Your task to perform on an android device: Show the shopping cart on bestbuy.com. Add dell xps to the cart on bestbuy.com Image 0: 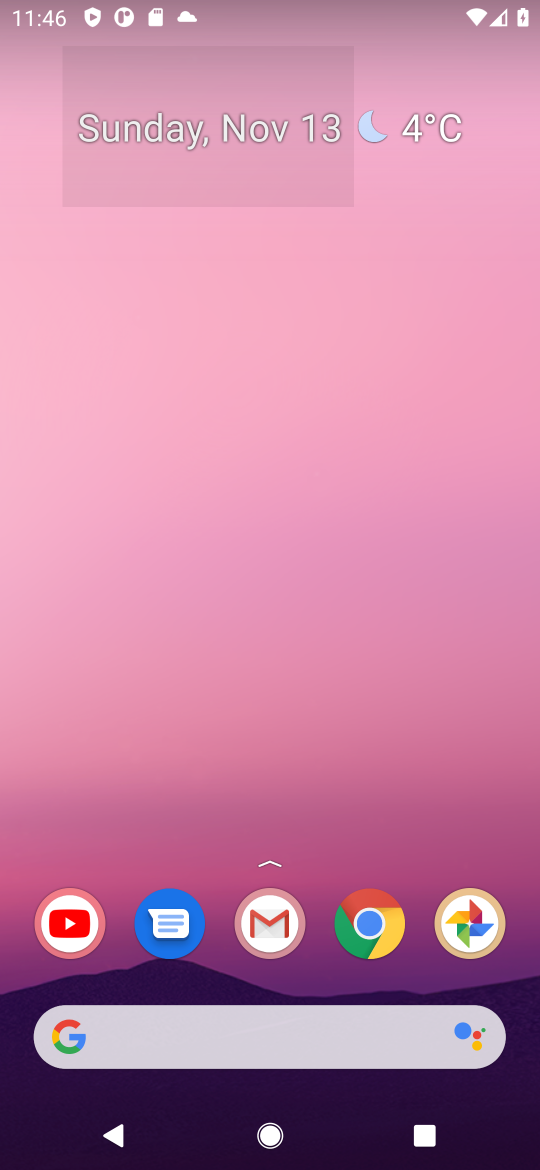
Step 0: click (359, 919)
Your task to perform on an android device: Show the shopping cart on bestbuy.com. Add dell xps to the cart on bestbuy.com Image 1: 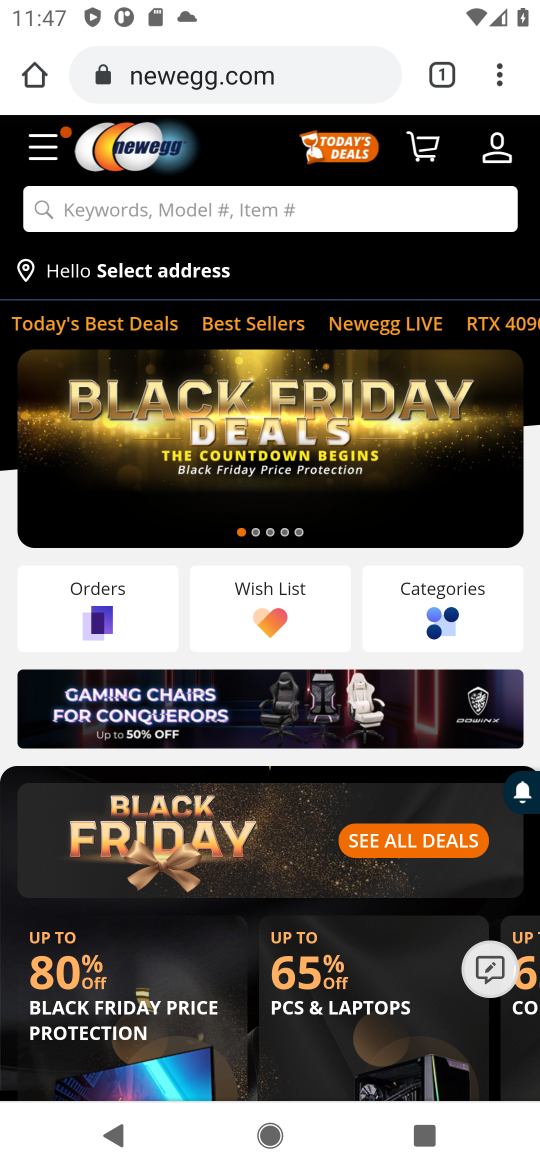
Step 1: click (215, 64)
Your task to perform on an android device: Show the shopping cart on bestbuy.com. Add dell xps to the cart on bestbuy.com Image 2: 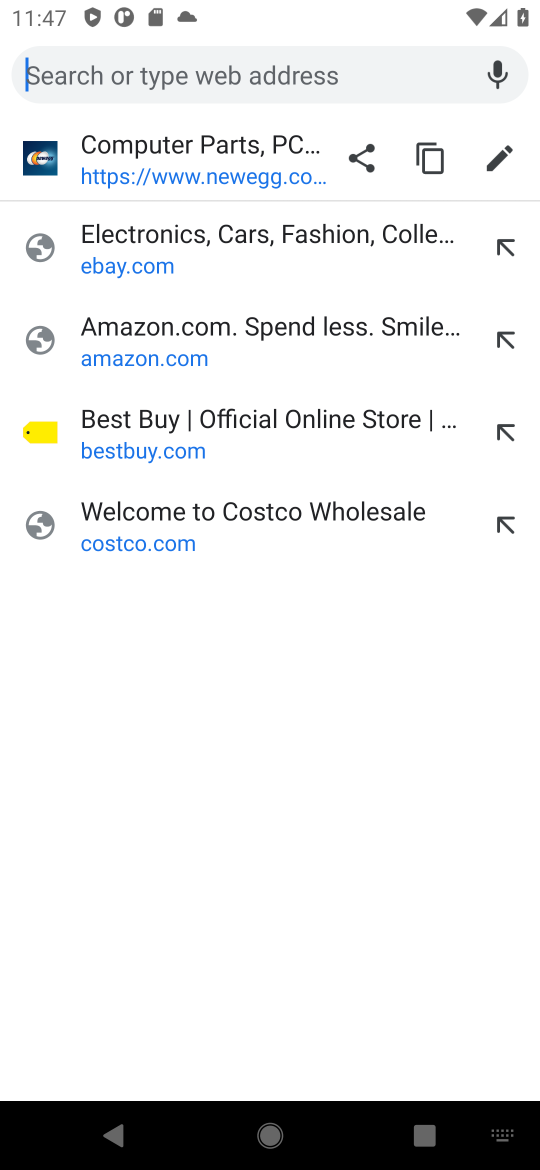
Step 2: click (140, 414)
Your task to perform on an android device: Show the shopping cart on bestbuy.com. Add dell xps to the cart on bestbuy.com Image 3: 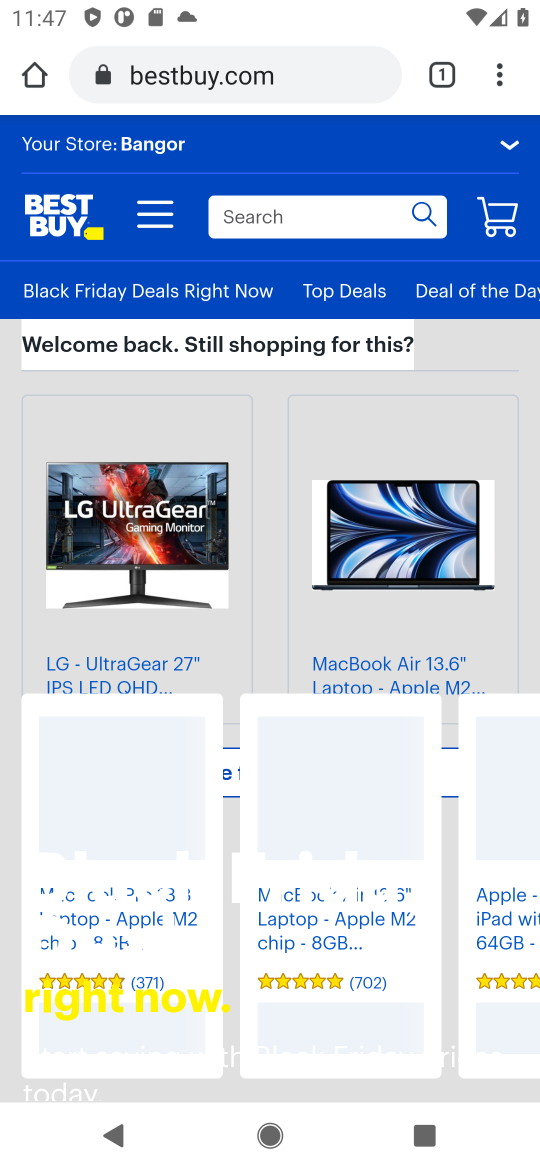
Step 3: click (493, 221)
Your task to perform on an android device: Show the shopping cart on bestbuy.com. Add dell xps to the cart on bestbuy.com Image 4: 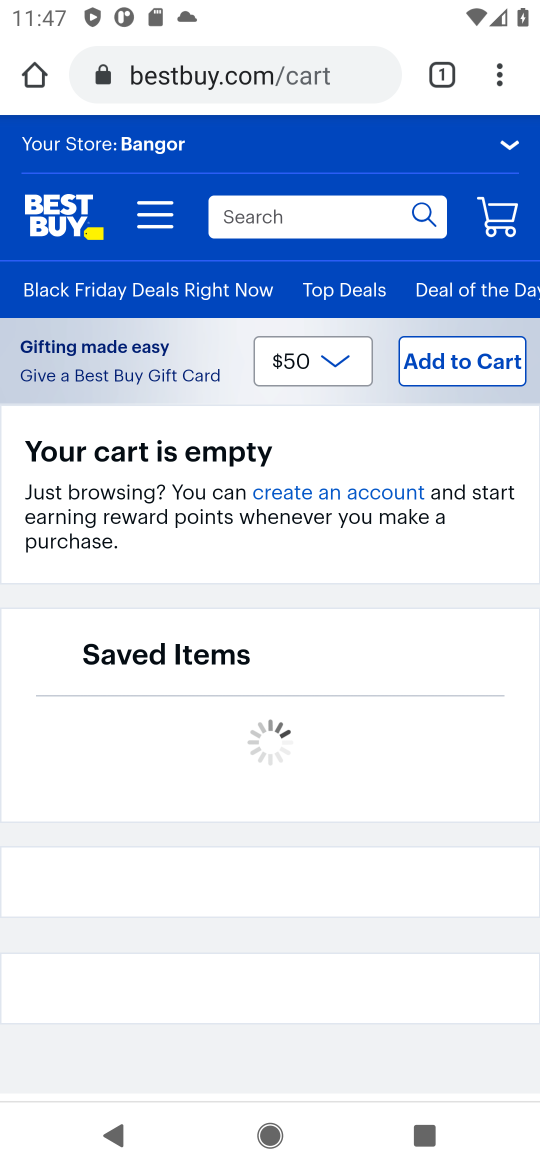
Step 4: click (342, 212)
Your task to perform on an android device: Show the shopping cart on bestbuy.com. Add dell xps to the cart on bestbuy.com Image 5: 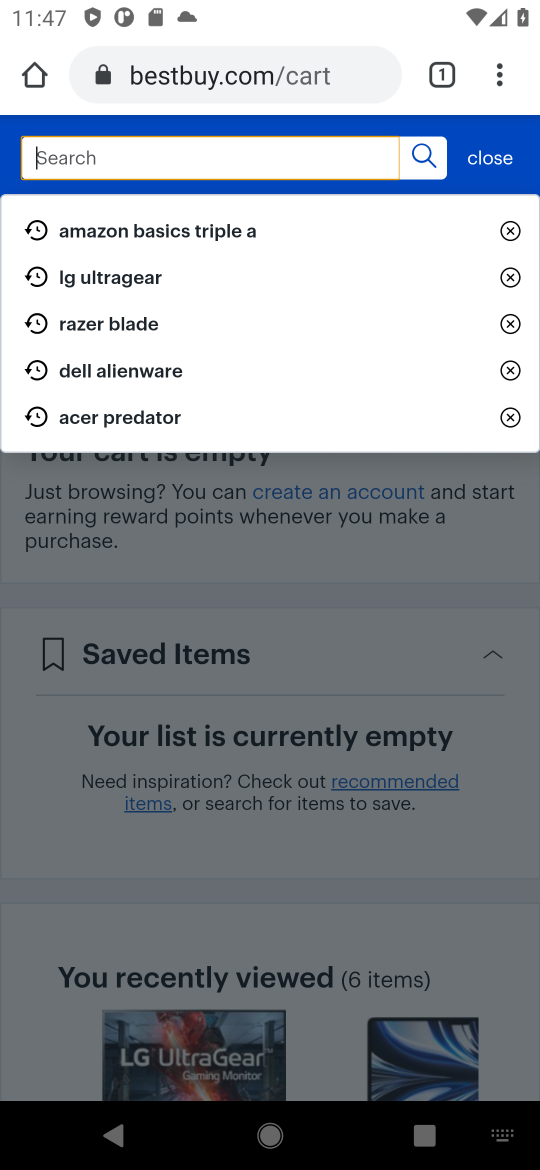
Step 5: press enter
Your task to perform on an android device: Show the shopping cart on bestbuy.com. Add dell xps to the cart on bestbuy.com Image 6: 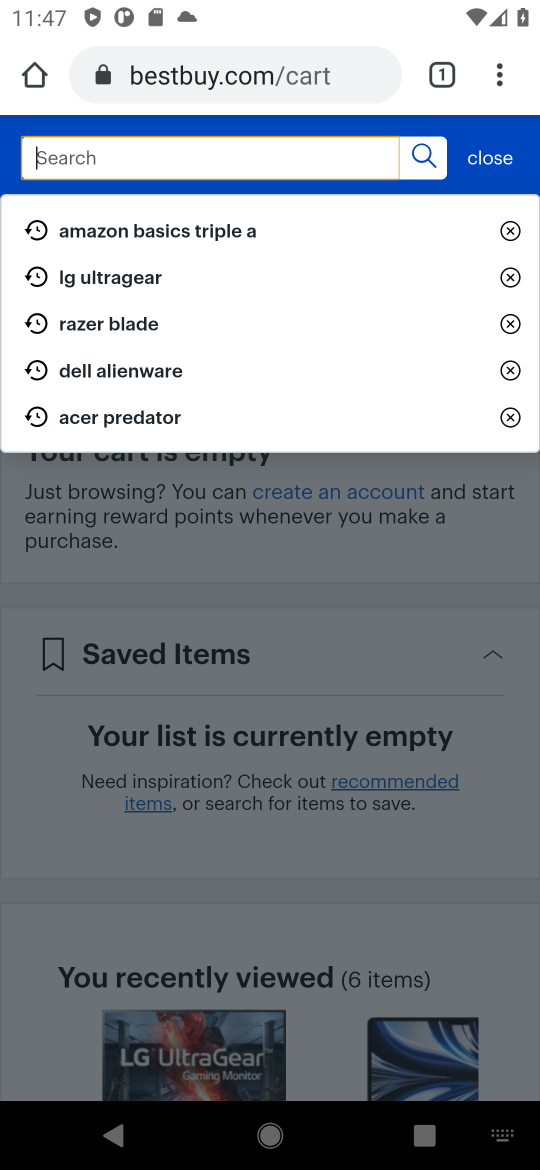
Step 6: type "dell xps"
Your task to perform on an android device: Show the shopping cart on bestbuy.com. Add dell xps to the cart on bestbuy.com Image 7: 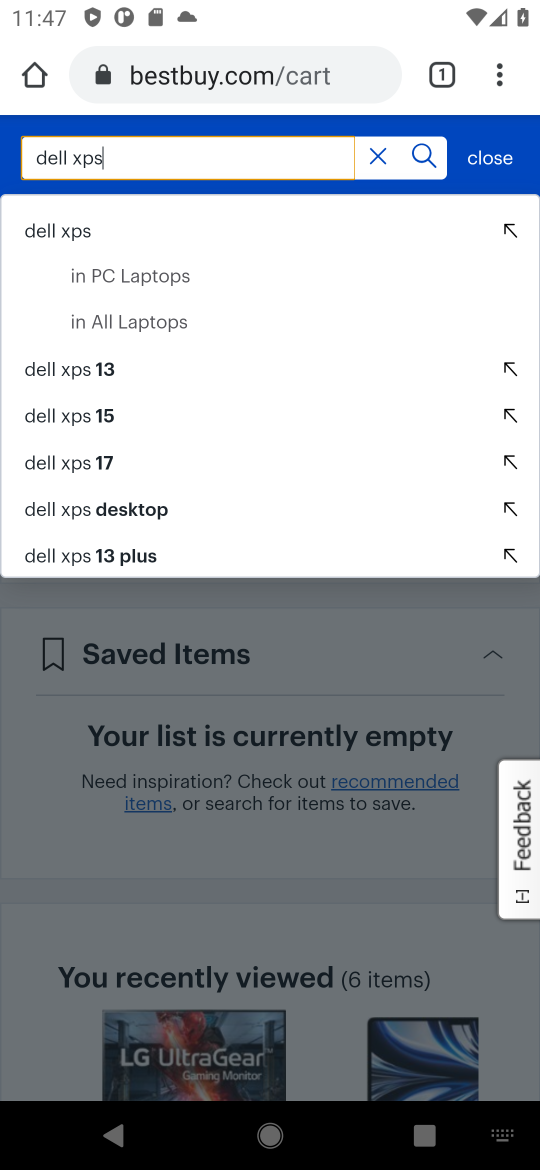
Step 7: click (71, 232)
Your task to perform on an android device: Show the shopping cart on bestbuy.com. Add dell xps to the cart on bestbuy.com Image 8: 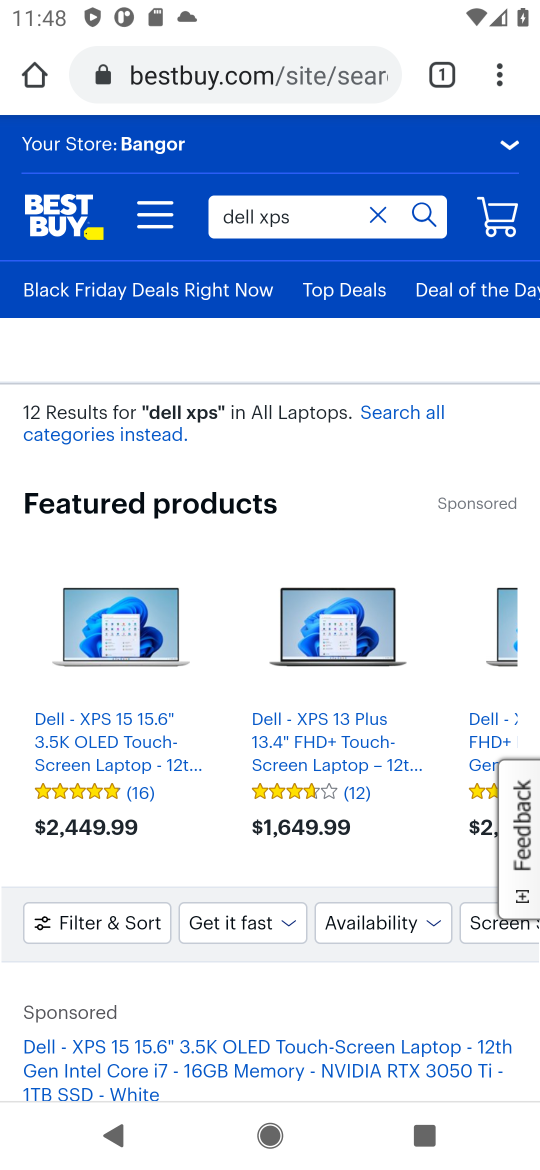
Step 8: drag from (387, 985) to (492, 331)
Your task to perform on an android device: Show the shopping cart on bestbuy.com. Add dell xps to the cart on bestbuy.com Image 9: 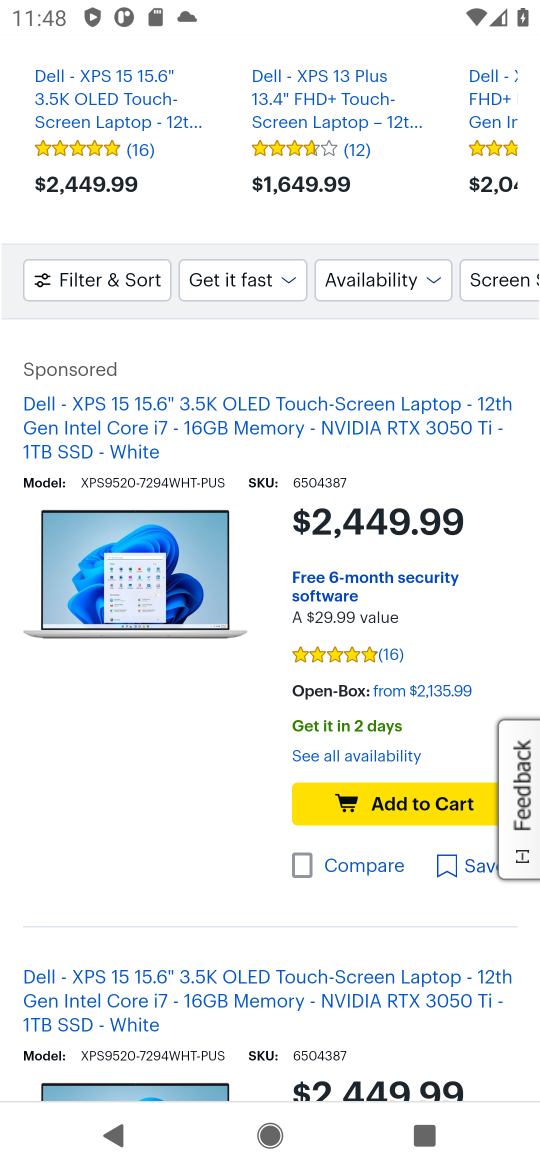
Step 9: click (149, 585)
Your task to perform on an android device: Show the shopping cart on bestbuy.com. Add dell xps to the cart on bestbuy.com Image 10: 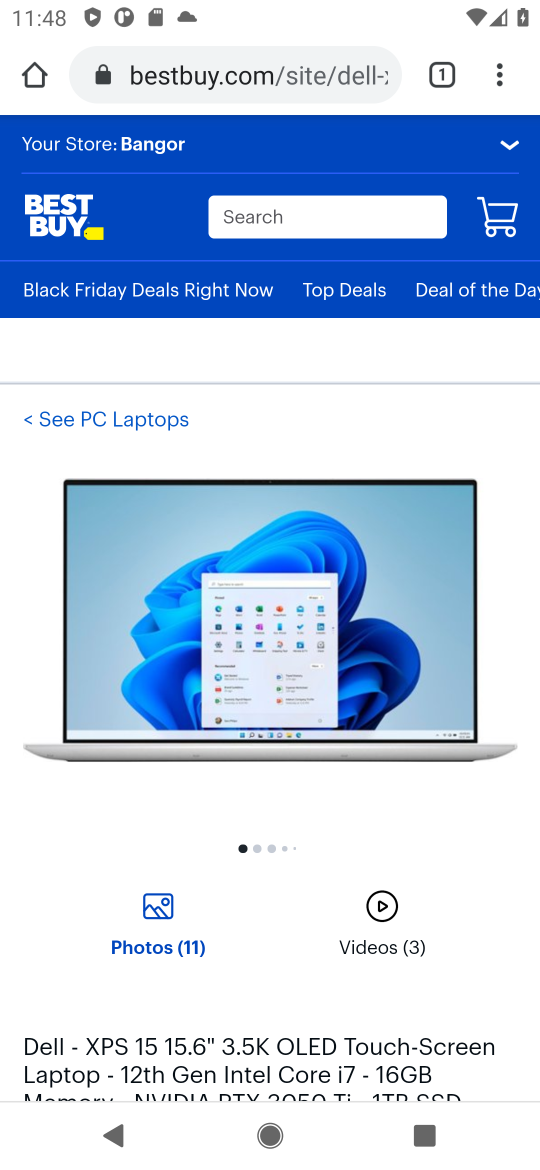
Step 10: drag from (460, 784) to (468, 417)
Your task to perform on an android device: Show the shopping cart on bestbuy.com. Add dell xps to the cart on bestbuy.com Image 11: 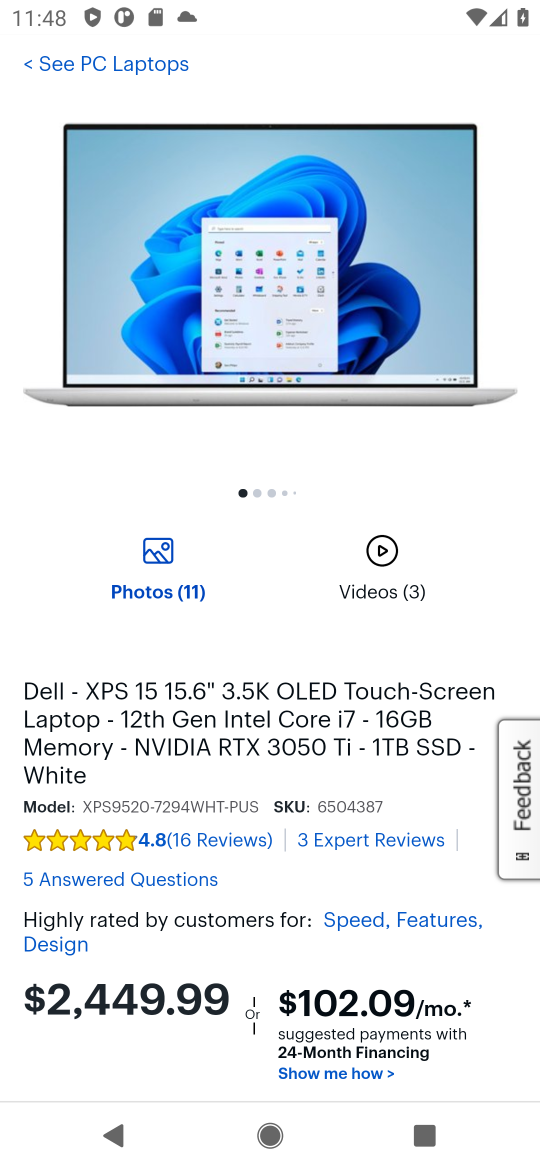
Step 11: drag from (482, 954) to (536, 320)
Your task to perform on an android device: Show the shopping cart on bestbuy.com. Add dell xps to the cart on bestbuy.com Image 12: 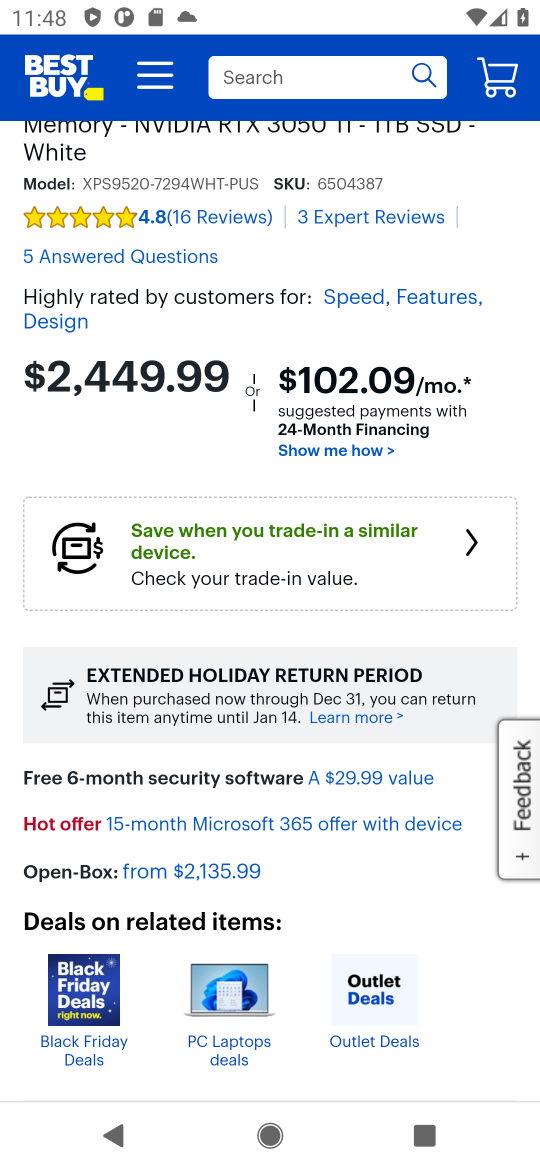
Step 12: drag from (478, 853) to (537, 376)
Your task to perform on an android device: Show the shopping cart on bestbuy.com. Add dell xps to the cart on bestbuy.com Image 13: 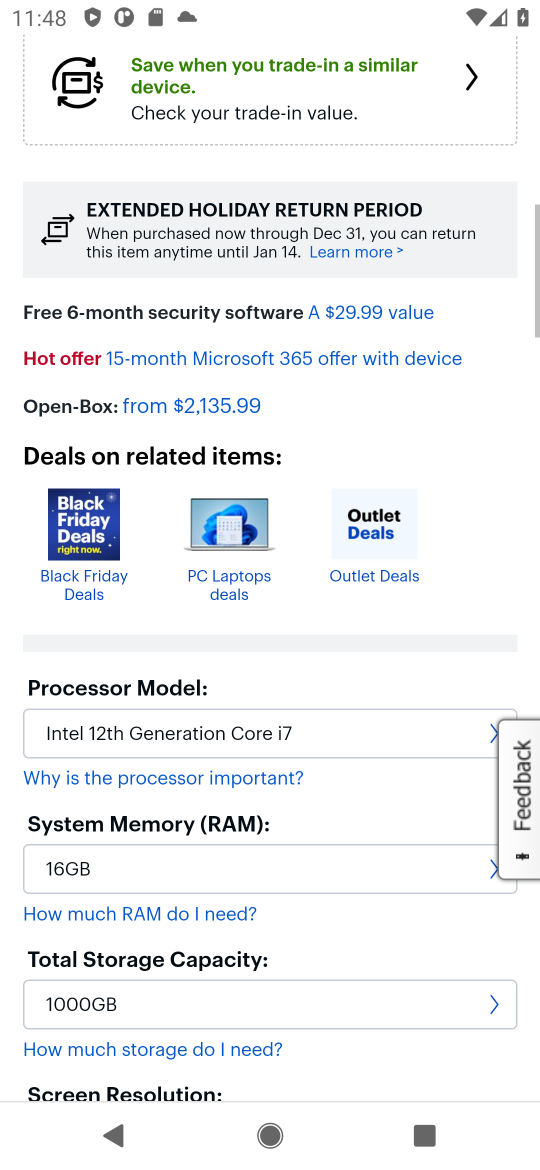
Step 13: drag from (427, 946) to (530, 964)
Your task to perform on an android device: Show the shopping cart on bestbuy.com. Add dell xps to the cart on bestbuy.com Image 14: 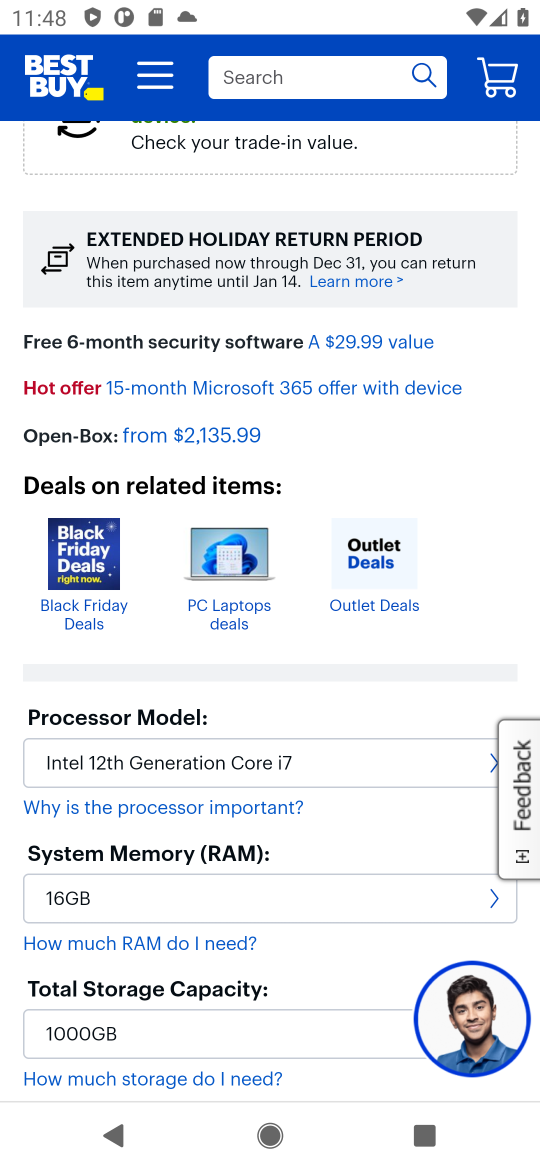
Step 14: drag from (381, 829) to (429, 180)
Your task to perform on an android device: Show the shopping cart on bestbuy.com. Add dell xps to the cart on bestbuy.com Image 15: 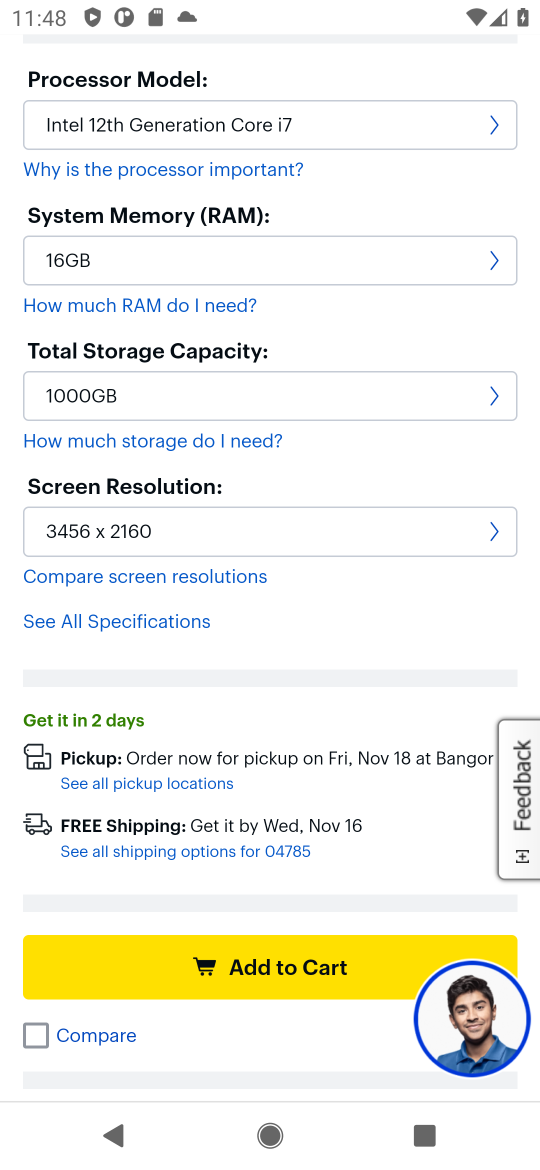
Step 15: click (306, 960)
Your task to perform on an android device: Show the shopping cart on bestbuy.com. Add dell xps to the cart on bestbuy.com Image 16: 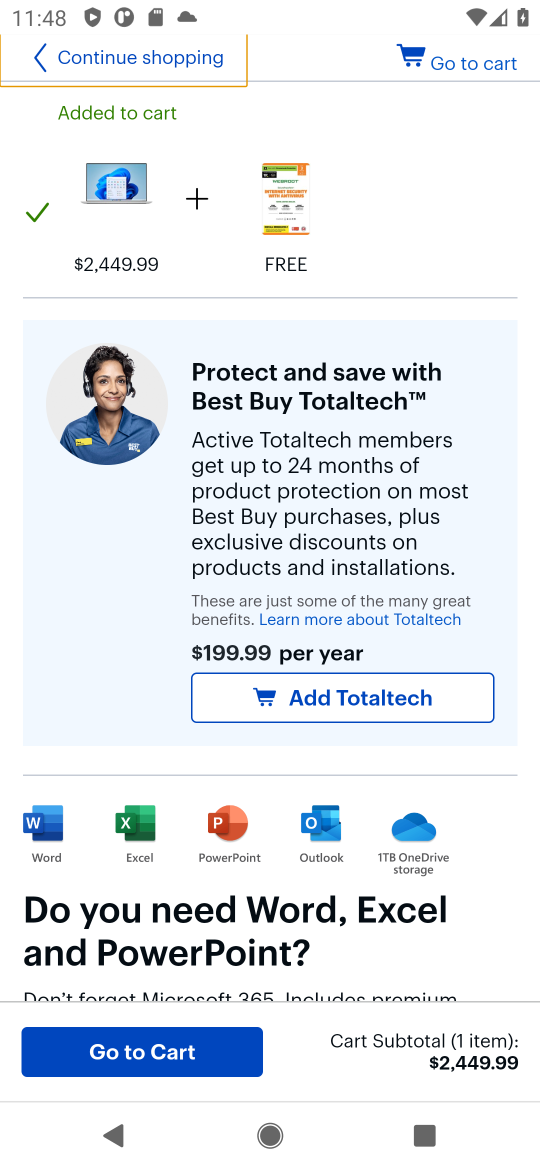
Step 16: task complete